Your task to perform on an android device: Find coffee shops on Maps Image 0: 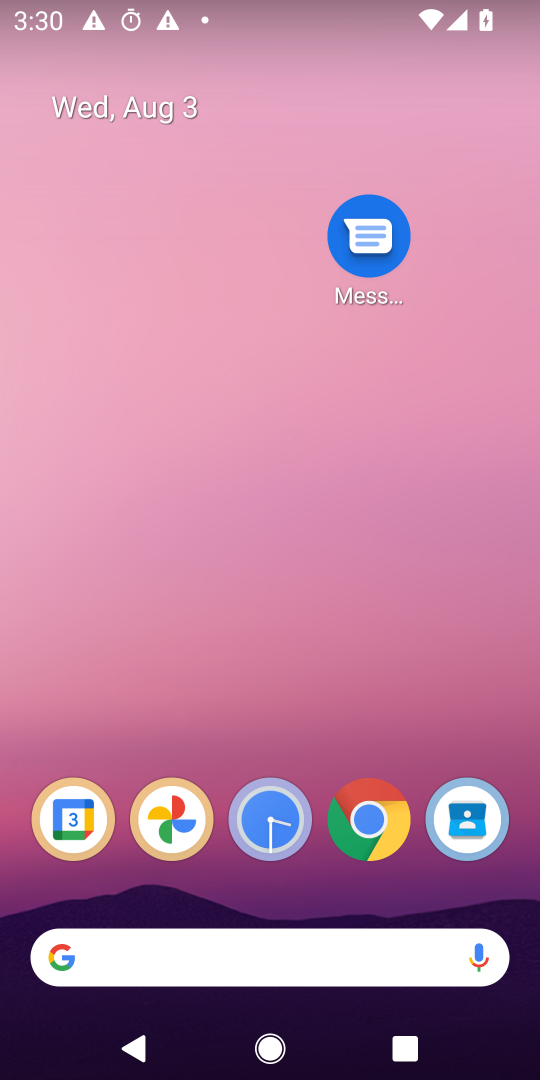
Step 0: drag from (68, 995) to (234, 402)
Your task to perform on an android device: Find coffee shops on Maps Image 1: 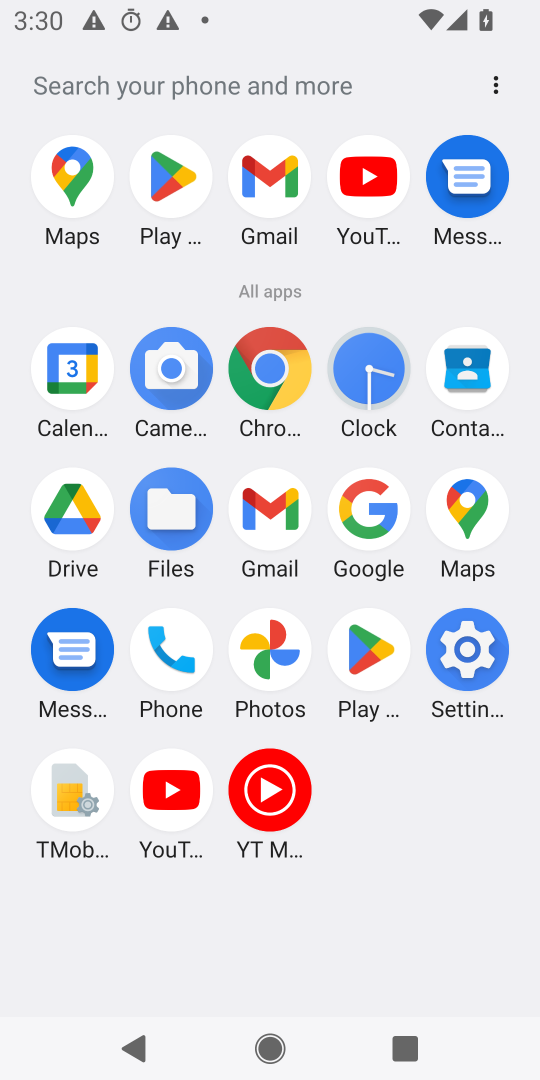
Step 1: click (46, 207)
Your task to perform on an android device: Find coffee shops on Maps Image 2: 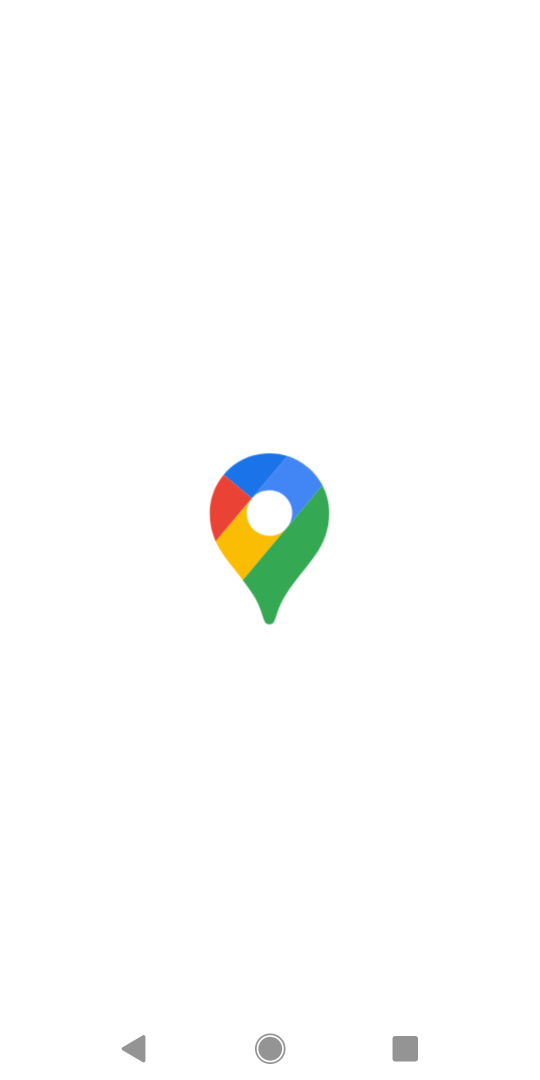
Step 2: task complete